Your task to perform on an android device: See recent photos Image 0: 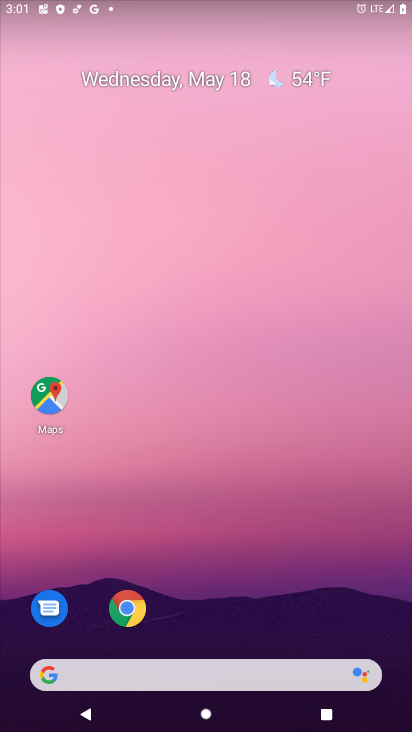
Step 0: drag from (289, 635) to (287, 2)
Your task to perform on an android device: See recent photos Image 1: 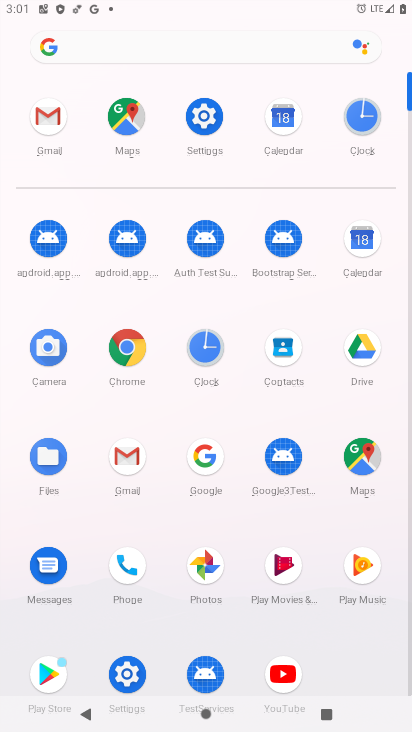
Step 1: click (212, 565)
Your task to perform on an android device: See recent photos Image 2: 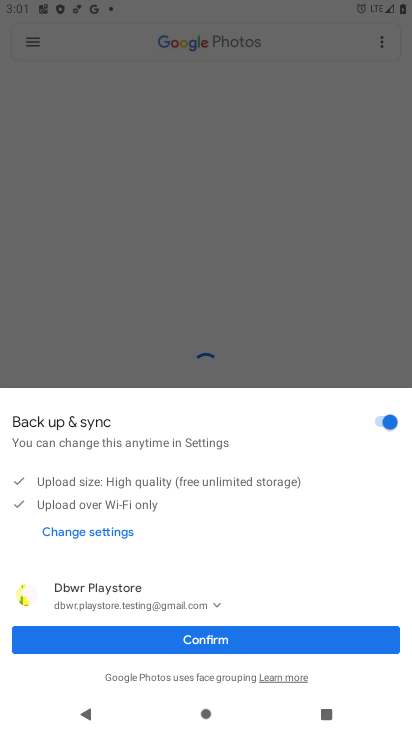
Step 2: click (206, 643)
Your task to perform on an android device: See recent photos Image 3: 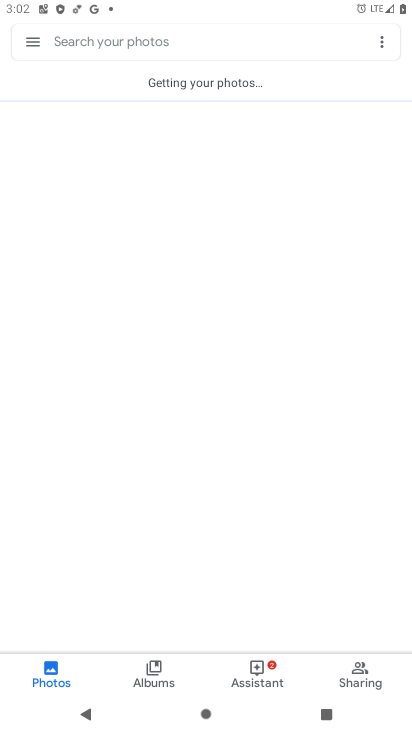
Step 3: task complete